Your task to perform on an android device: Open Wikipedia Image 0: 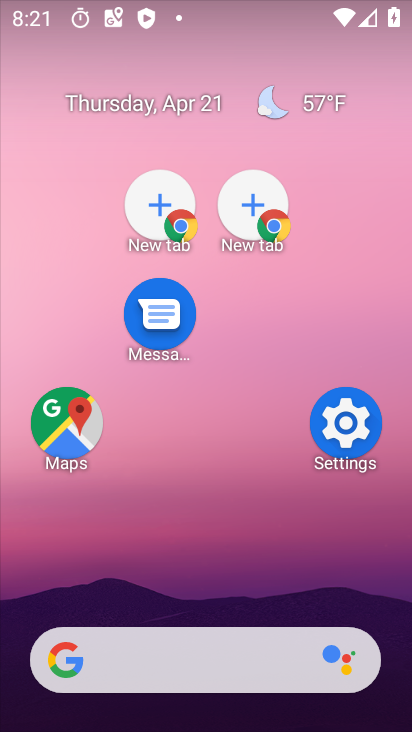
Step 0: drag from (191, 607) to (130, 189)
Your task to perform on an android device: Open Wikipedia Image 1: 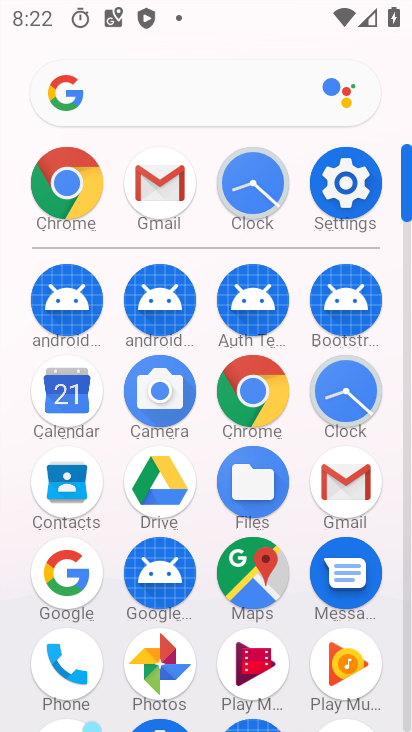
Step 1: click (52, 195)
Your task to perform on an android device: Open Wikipedia Image 2: 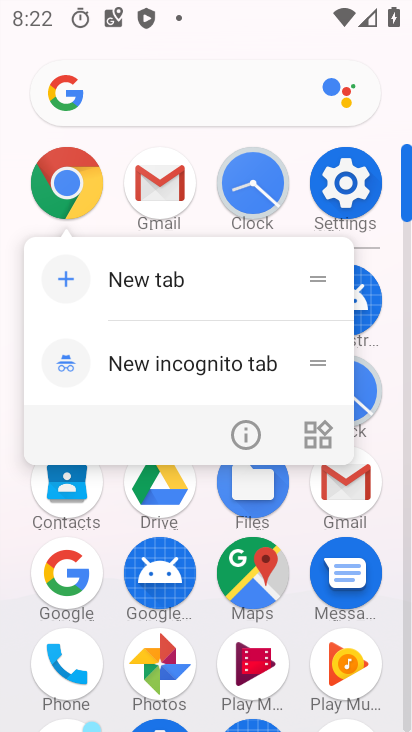
Step 2: click (69, 206)
Your task to perform on an android device: Open Wikipedia Image 3: 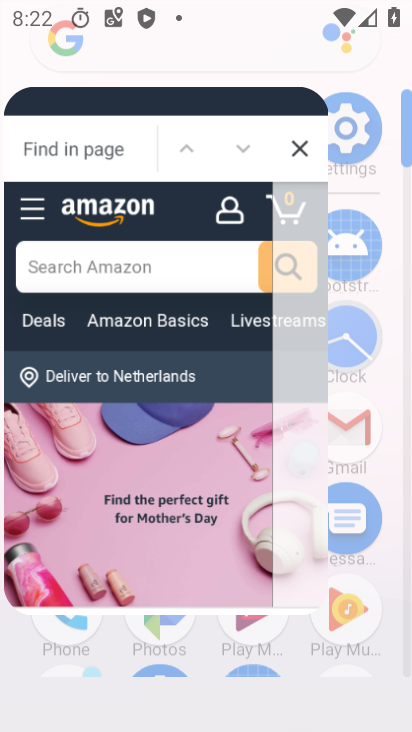
Step 3: click (63, 184)
Your task to perform on an android device: Open Wikipedia Image 4: 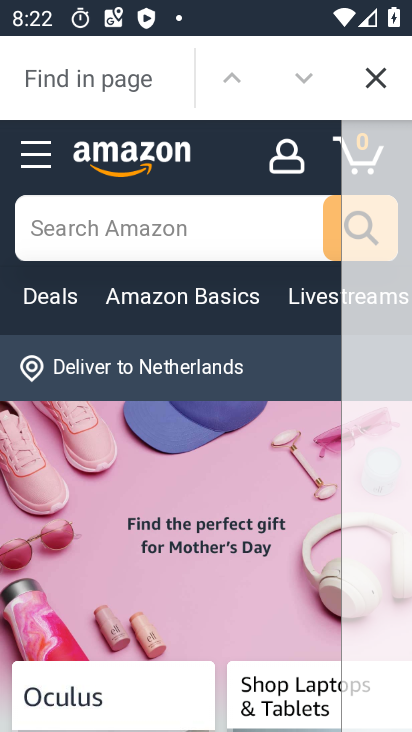
Step 4: click (372, 76)
Your task to perform on an android device: Open Wikipedia Image 5: 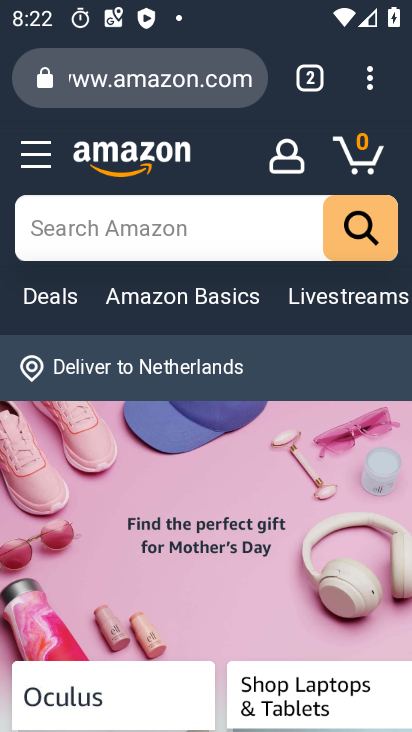
Step 5: drag from (375, 83) to (92, 243)
Your task to perform on an android device: Open Wikipedia Image 6: 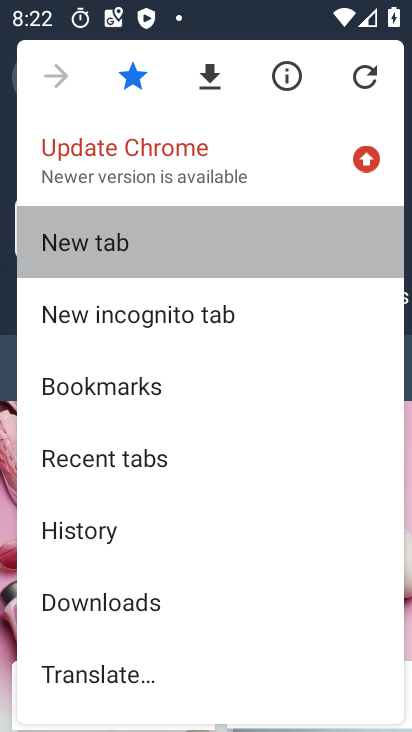
Step 6: click (92, 243)
Your task to perform on an android device: Open Wikipedia Image 7: 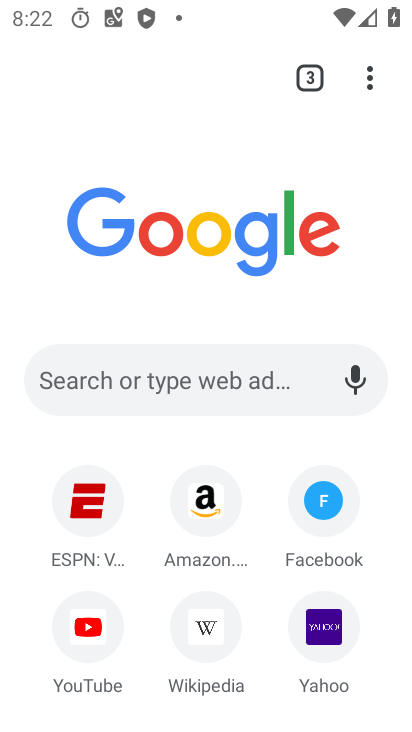
Step 7: click (195, 636)
Your task to perform on an android device: Open Wikipedia Image 8: 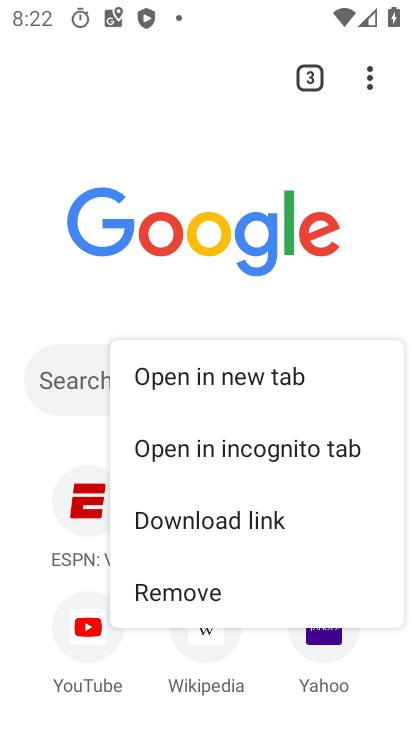
Step 8: click (196, 637)
Your task to perform on an android device: Open Wikipedia Image 9: 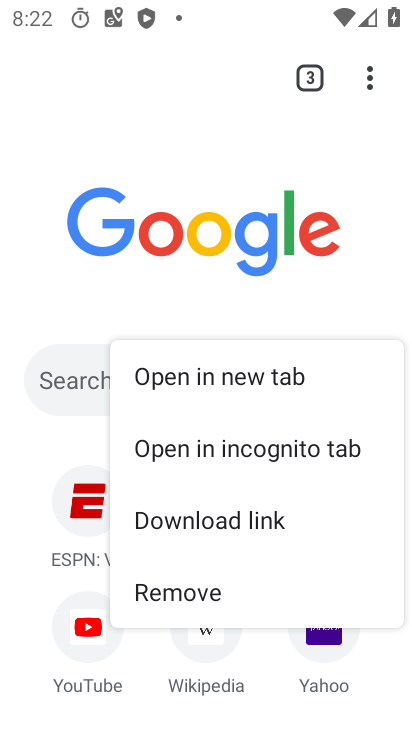
Step 9: click (197, 636)
Your task to perform on an android device: Open Wikipedia Image 10: 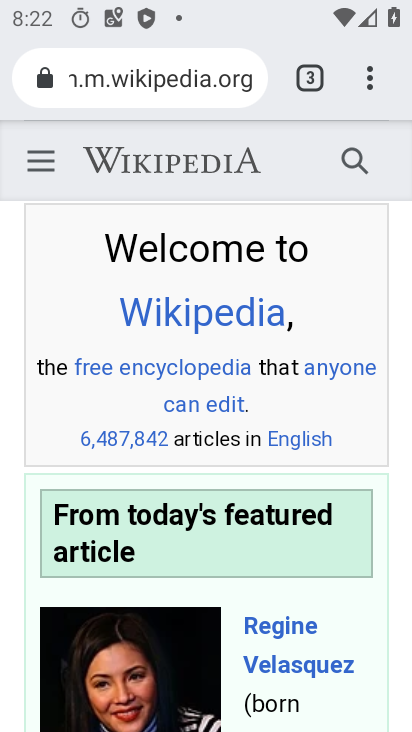
Step 10: task complete